Your task to perform on an android device: Open my contact list Image 0: 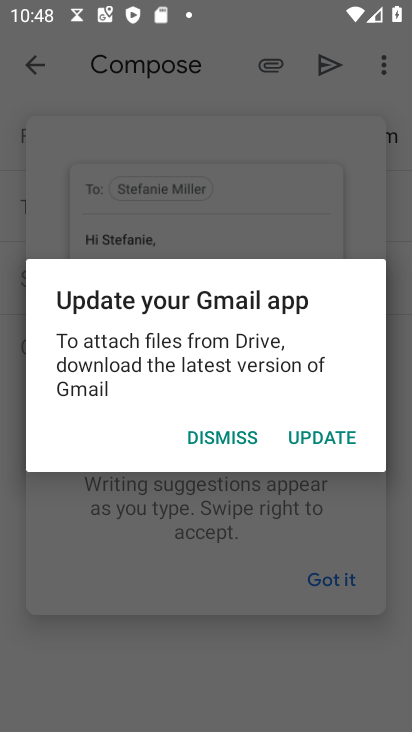
Step 0: press home button
Your task to perform on an android device: Open my contact list Image 1: 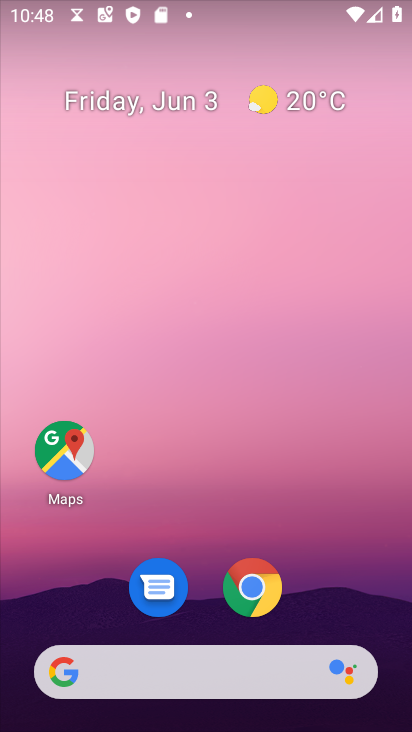
Step 1: drag from (345, 489) to (124, 68)
Your task to perform on an android device: Open my contact list Image 2: 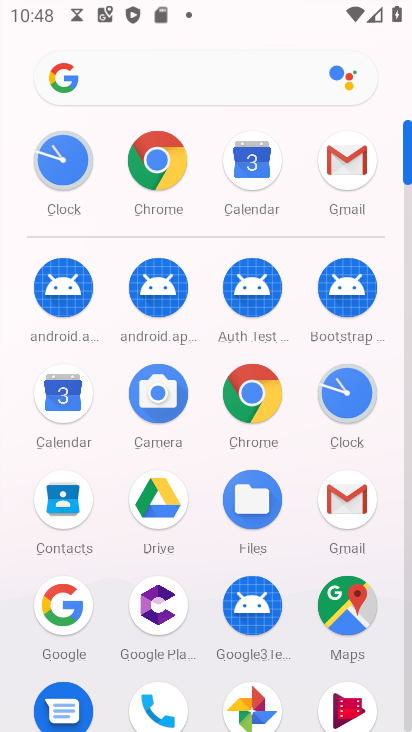
Step 2: click (74, 500)
Your task to perform on an android device: Open my contact list Image 3: 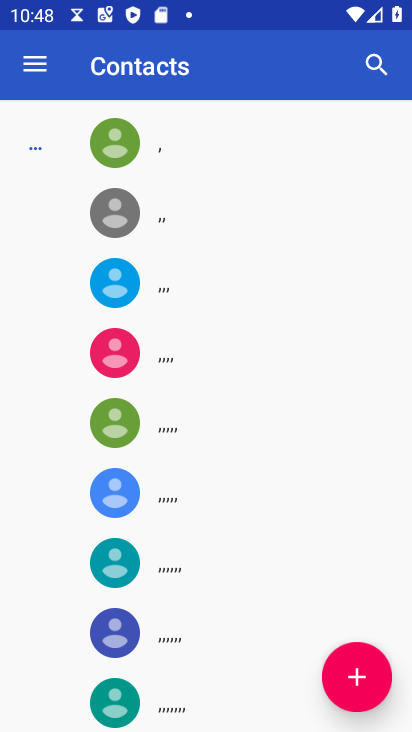
Step 3: task complete